Your task to perform on an android device: Open battery settings Image 0: 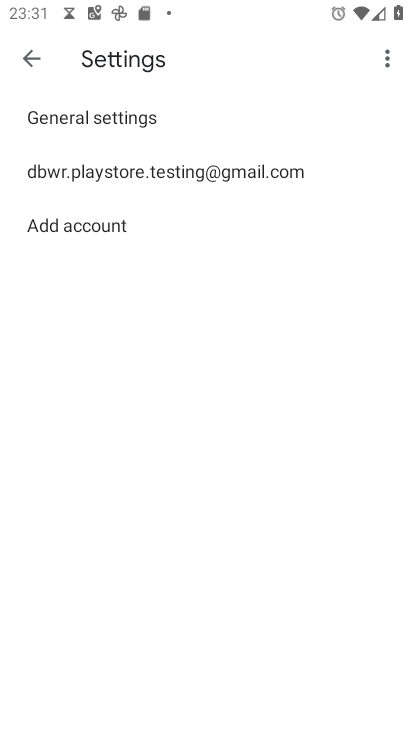
Step 0: press home button
Your task to perform on an android device: Open battery settings Image 1: 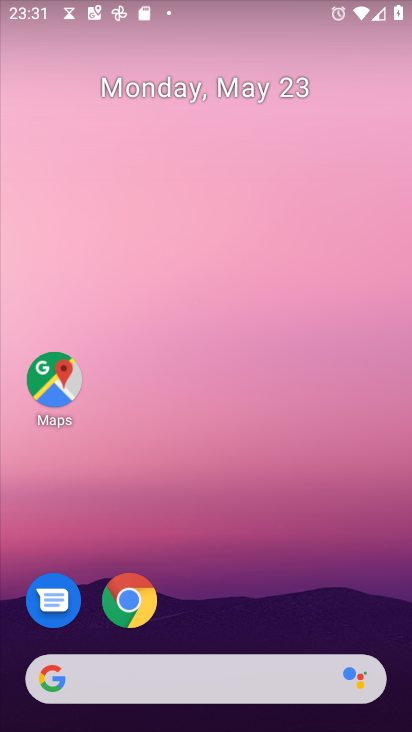
Step 1: drag from (205, 725) to (199, 213)
Your task to perform on an android device: Open battery settings Image 2: 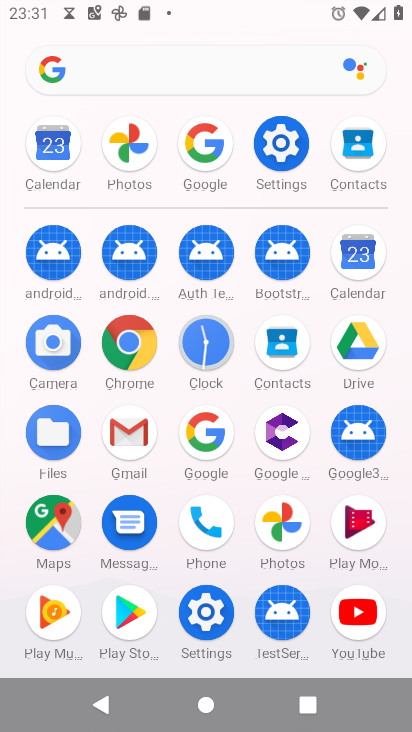
Step 2: click (277, 145)
Your task to perform on an android device: Open battery settings Image 3: 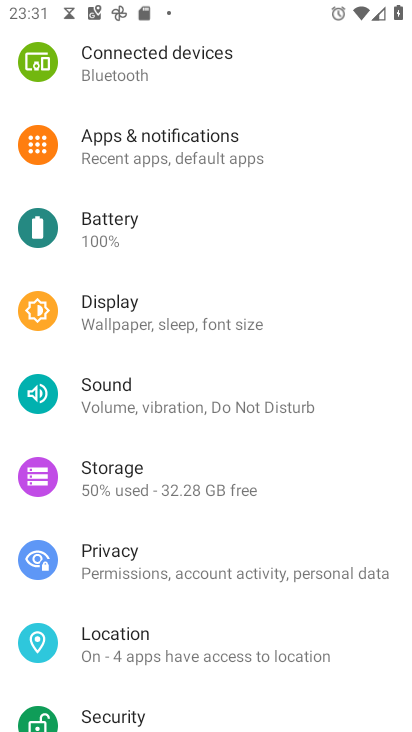
Step 3: click (100, 235)
Your task to perform on an android device: Open battery settings Image 4: 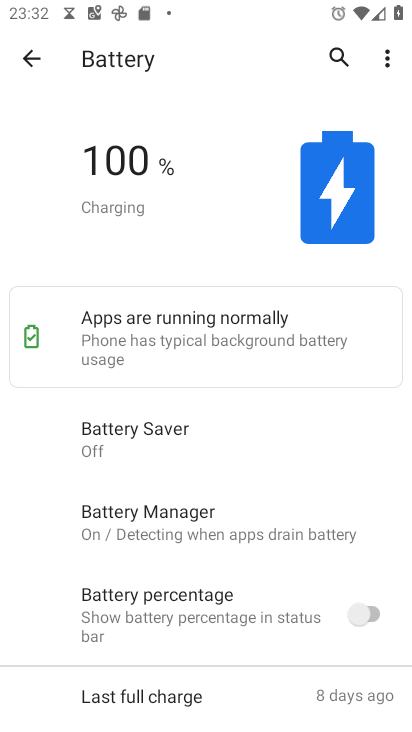
Step 4: task complete